Your task to perform on an android device: check data usage Image 0: 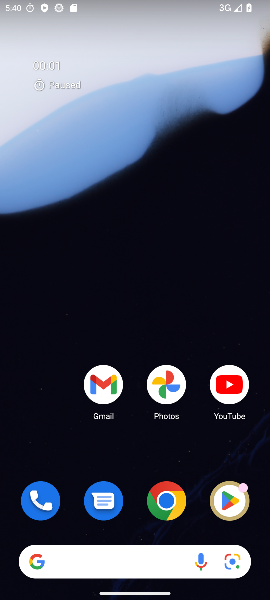
Step 0: click (21, 539)
Your task to perform on an android device: check data usage Image 1: 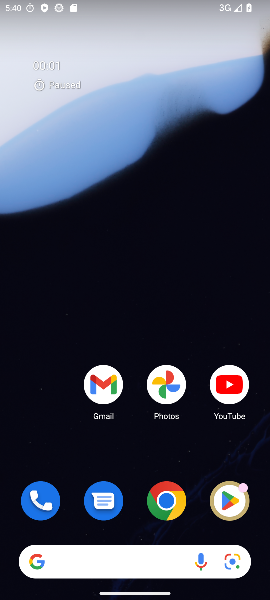
Step 1: drag from (21, 539) to (120, 311)
Your task to perform on an android device: check data usage Image 2: 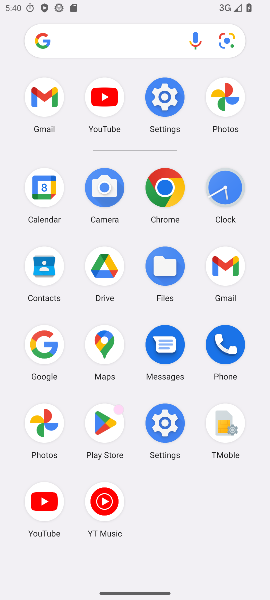
Step 2: click (153, 417)
Your task to perform on an android device: check data usage Image 3: 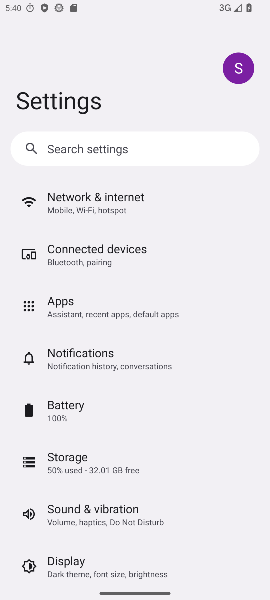
Step 3: click (82, 211)
Your task to perform on an android device: check data usage Image 4: 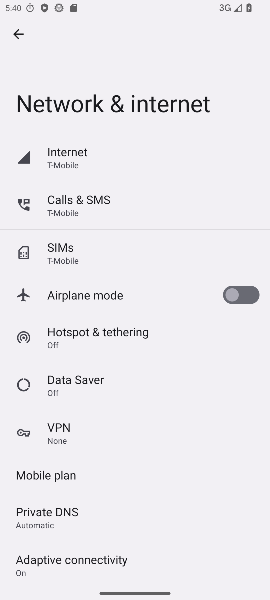
Step 4: drag from (193, 491) to (155, 255)
Your task to perform on an android device: check data usage Image 5: 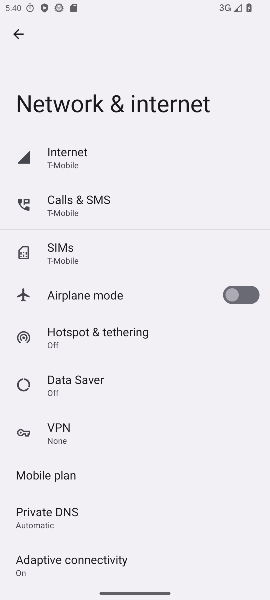
Step 5: drag from (192, 546) to (193, 405)
Your task to perform on an android device: check data usage Image 6: 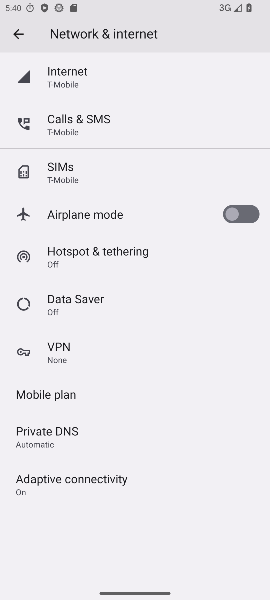
Step 6: click (80, 69)
Your task to perform on an android device: check data usage Image 7: 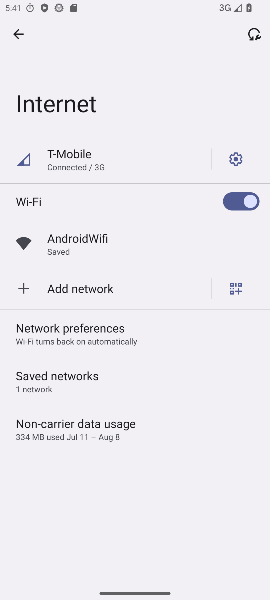
Step 7: click (80, 432)
Your task to perform on an android device: check data usage Image 8: 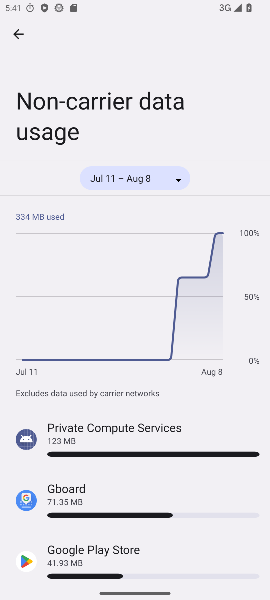
Step 8: task complete